Your task to perform on an android device: Turn on the flashlight Image 0: 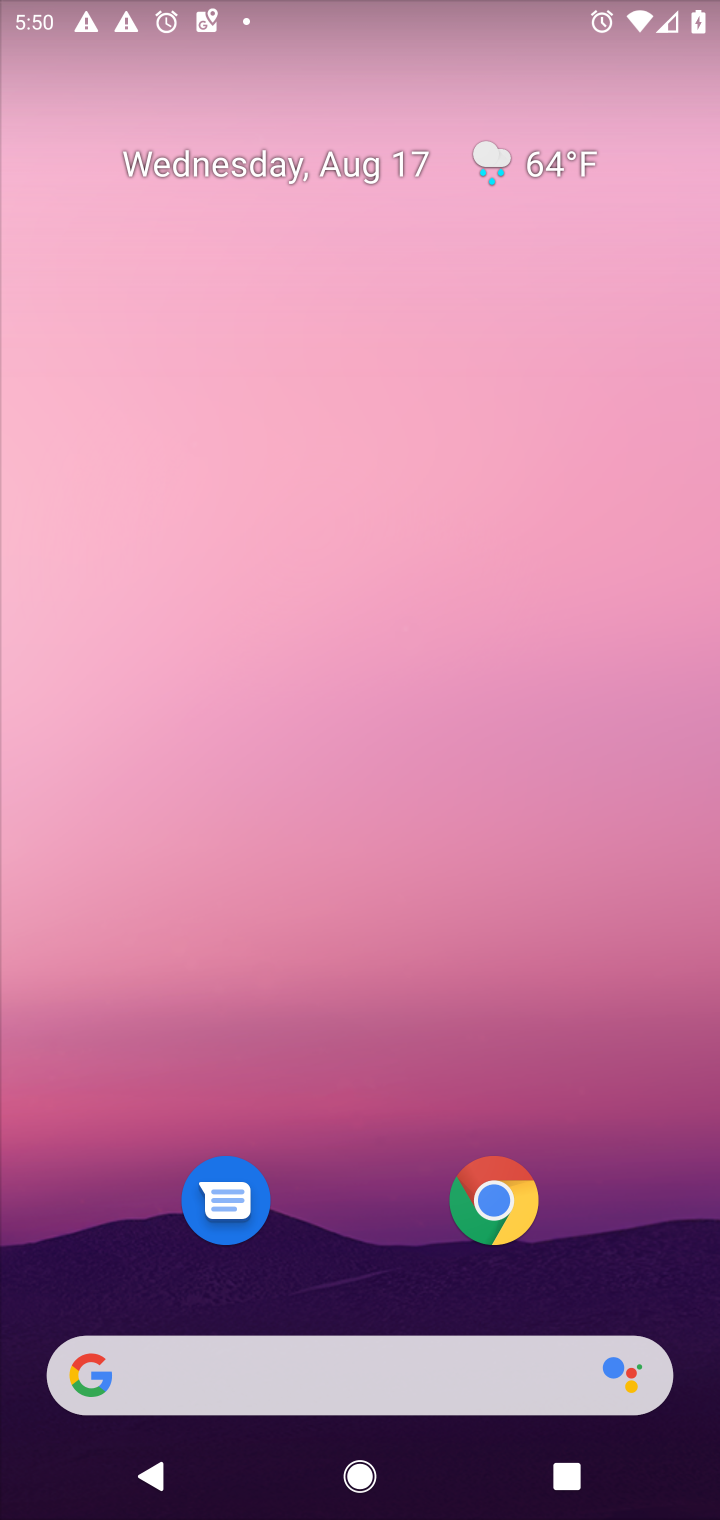
Step 0: drag from (338, 1176) to (243, 67)
Your task to perform on an android device: Turn on the flashlight Image 1: 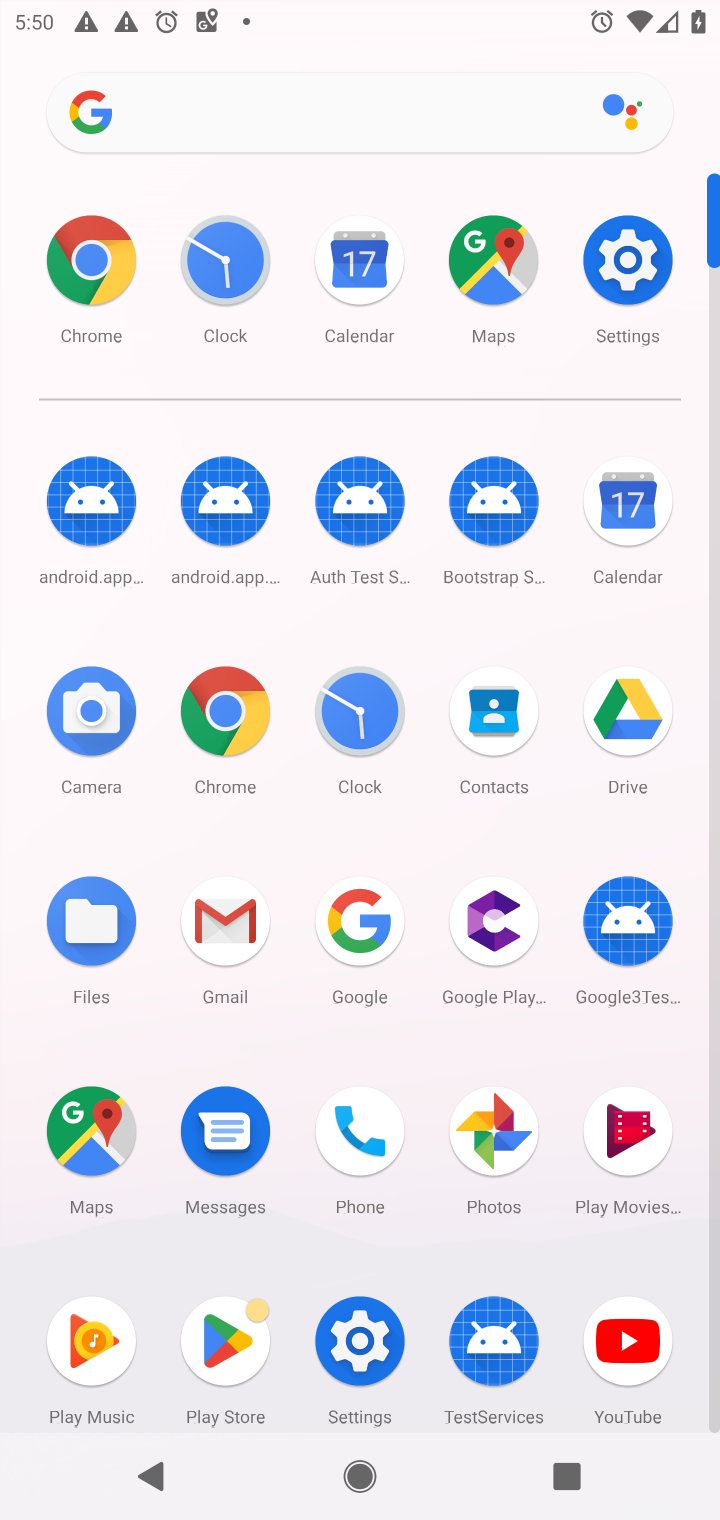
Step 1: click (632, 291)
Your task to perform on an android device: Turn on the flashlight Image 2: 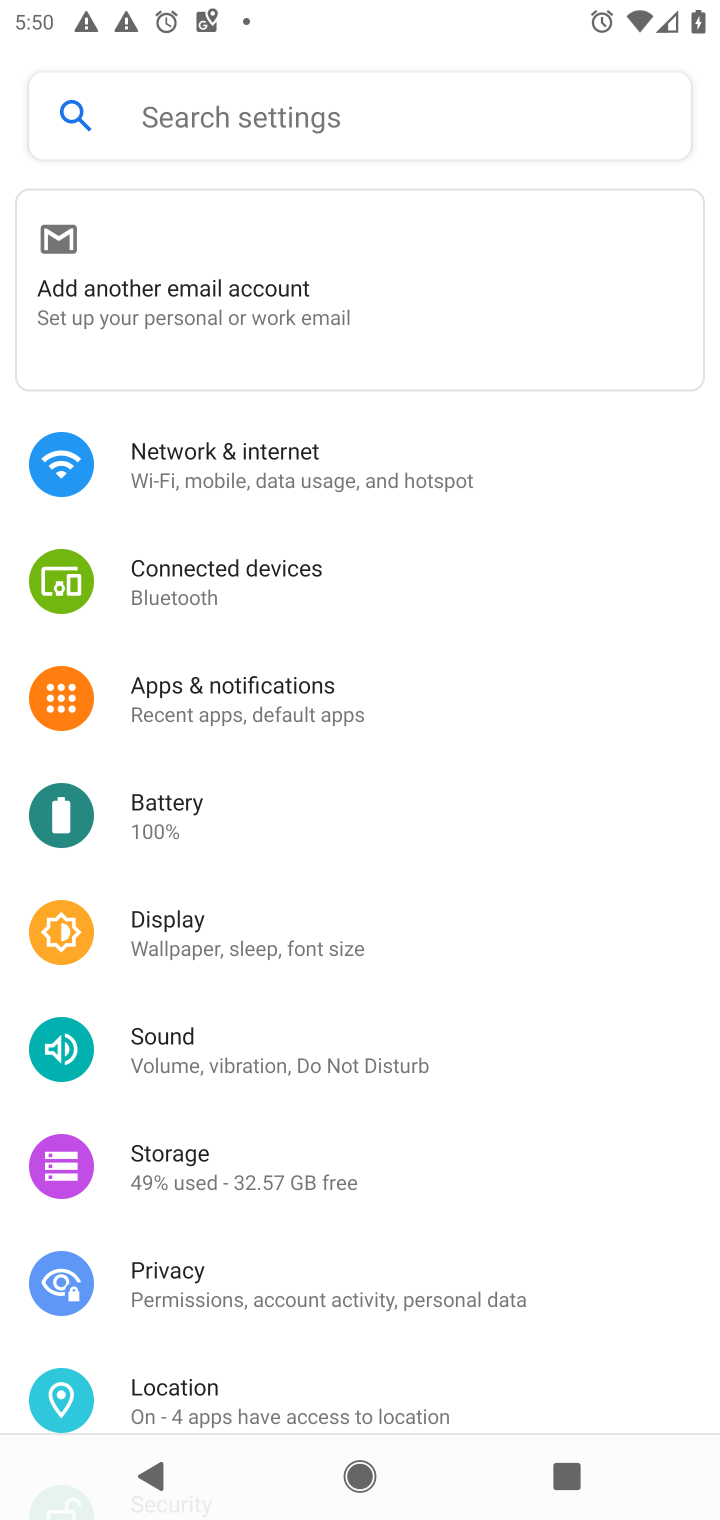
Step 2: task complete